Your task to perform on an android device: Open Google Maps and go to "Timeline" Image 0: 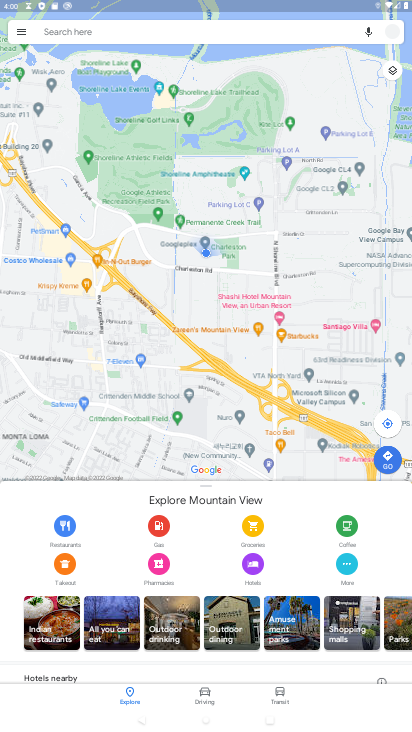
Step 0: press home button
Your task to perform on an android device: Open Google Maps and go to "Timeline" Image 1: 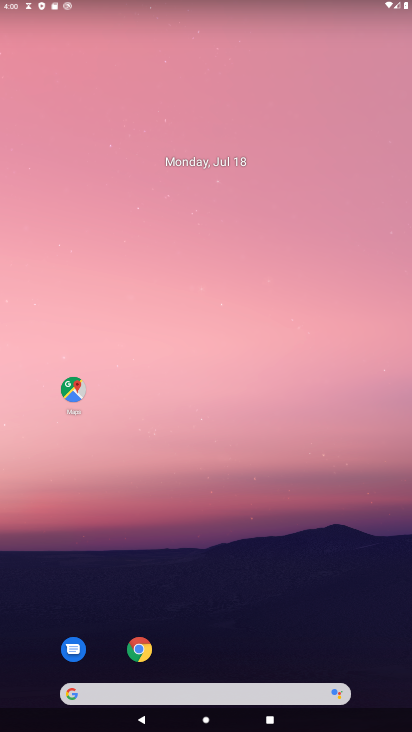
Step 1: click (70, 381)
Your task to perform on an android device: Open Google Maps and go to "Timeline" Image 2: 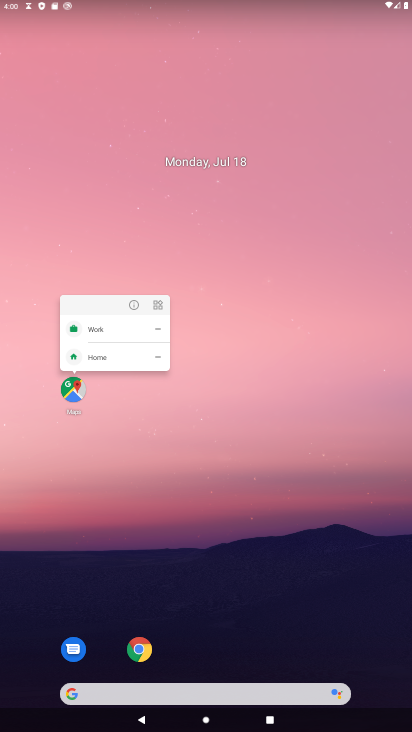
Step 2: click (72, 384)
Your task to perform on an android device: Open Google Maps and go to "Timeline" Image 3: 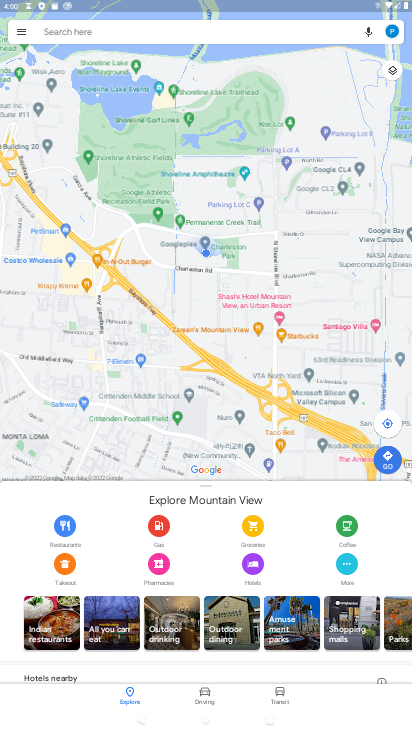
Step 3: click (15, 27)
Your task to perform on an android device: Open Google Maps and go to "Timeline" Image 4: 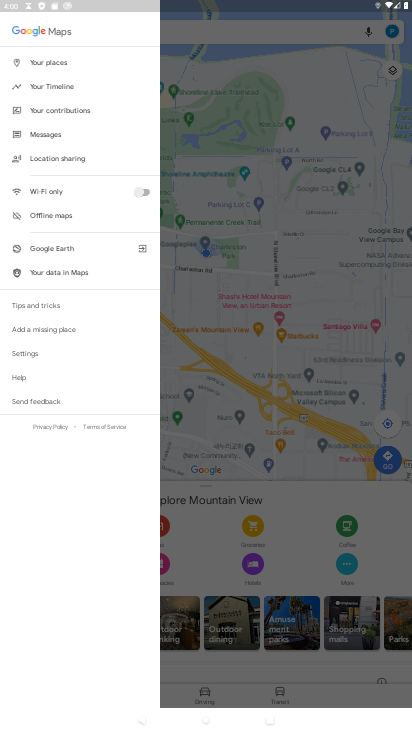
Step 4: click (57, 88)
Your task to perform on an android device: Open Google Maps and go to "Timeline" Image 5: 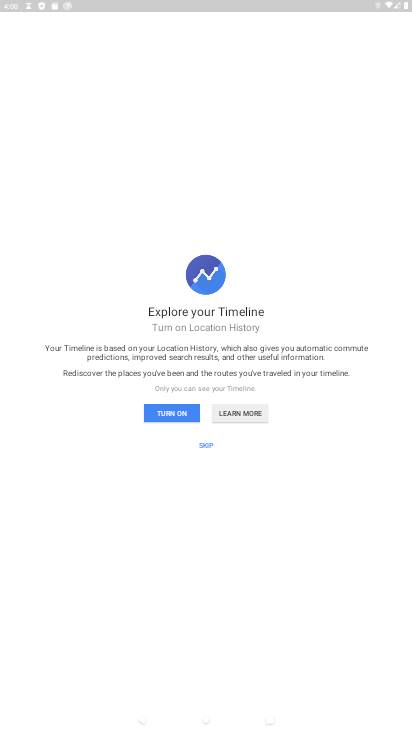
Step 5: click (182, 414)
Your task to perform on an android device: Open Google Maps and go to "Timeline" Image 6: 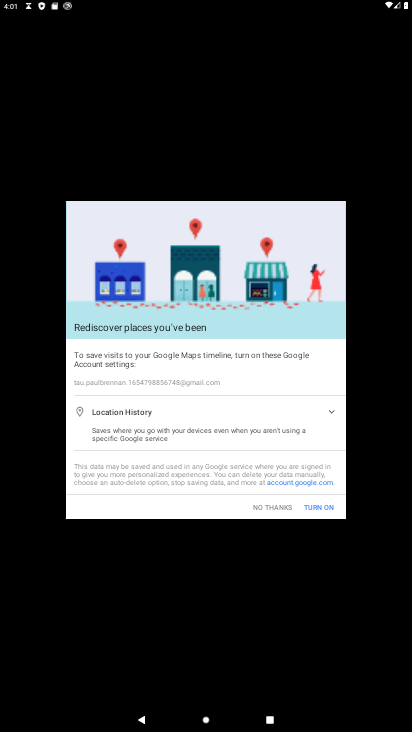
Step 6: click (264, 508)
Your task to perform on an android device: Open Google Maps and go to "Timeline" Image 7: 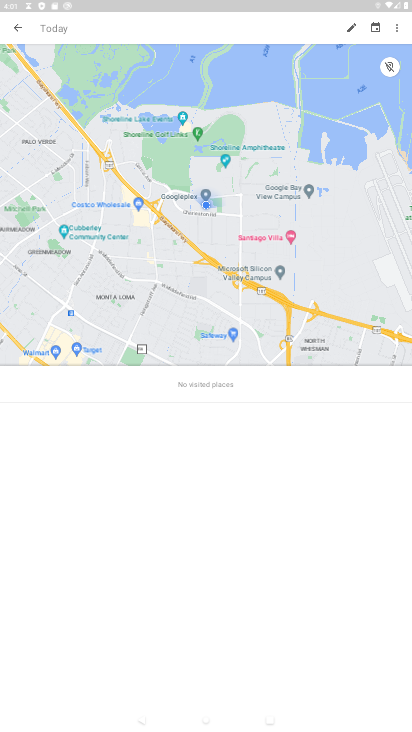
Step 7: task complete